Your task to perform on an android device: Open calendar and show me the second week of next month Image 0: 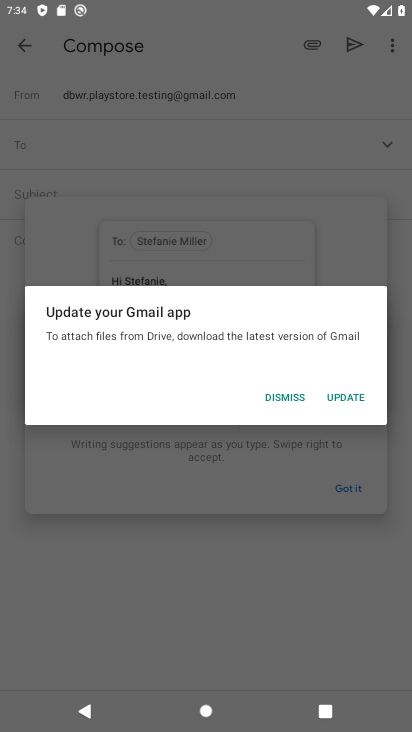
Step 0: press home button
Your task to perform on an android device: Open calendar and show me the second week of next month Image 1: 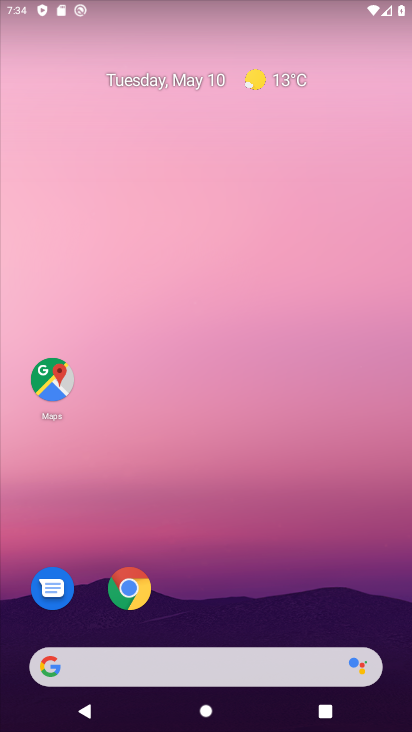
Step 1: click (164, 69)
Your task to perform on an android device: Open calendar and show me the second week of next month Image 2: 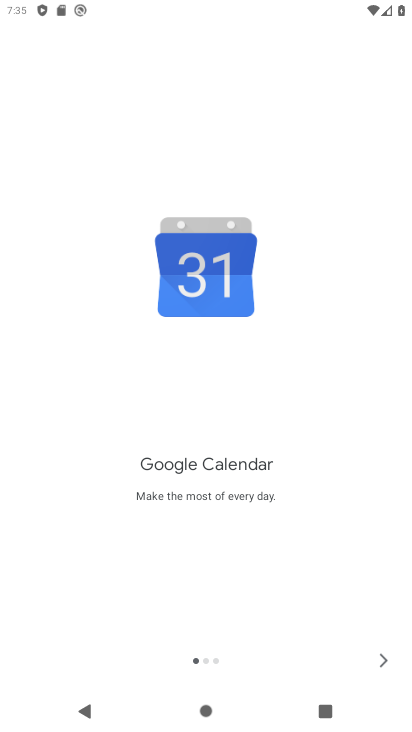
Step 2: click (390, 668)
Your task to perform on an android device: Open calendar and show me the second week of next month Image 3: 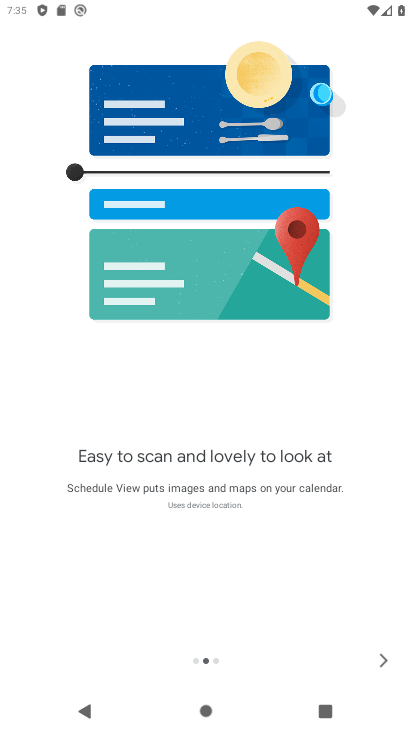
Step 3: click (390, 668)
Your task to perform on an android device: Open calendar and show me the second week of next month Image 4: 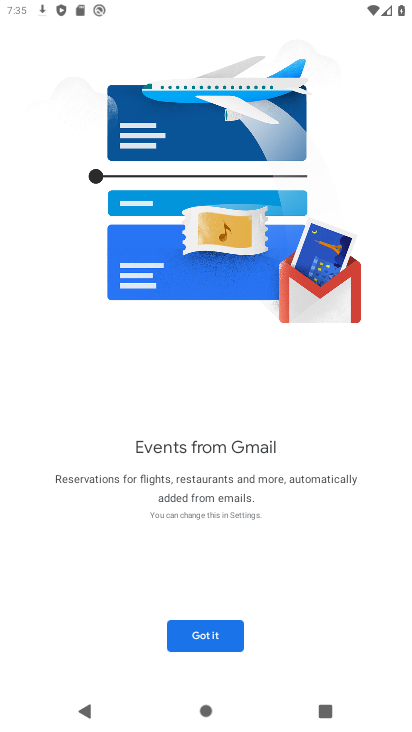
Step 4: click (173, 630)
Your task to perform on an android device: Open calendar and show me the second week of next month Image 5: 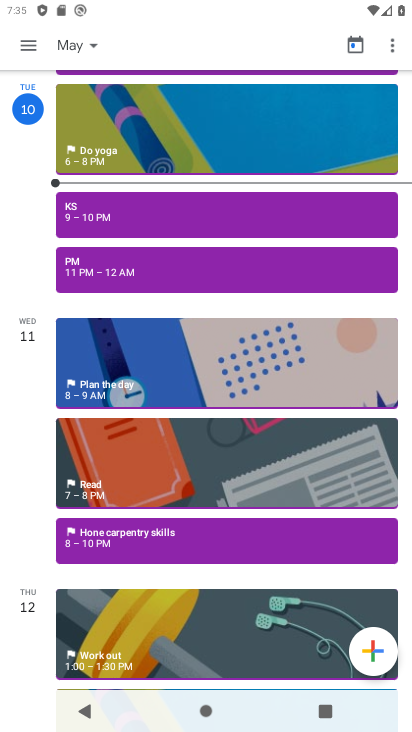
Step 5: click (68, 41)
Your task to perform on an android device: Open calendar and show me the second week of next month Image 6: 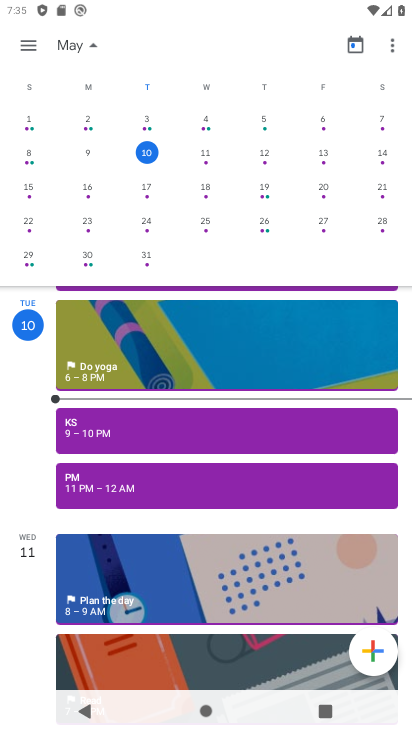
Step 6: drag from (386, 257) to (47, 215)
Your task to perform on an android device: Open calendar and show me the second week of next month Image 7: 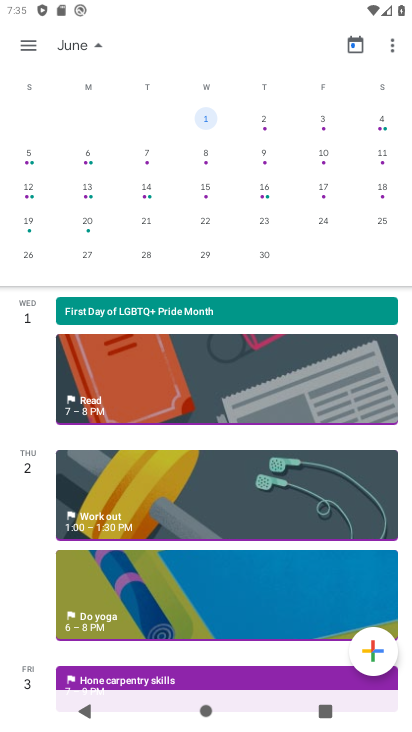
Step 7: click (208, 156)
Your task to perform on an android device: Open calendar and show me the second week of next month Image 8: 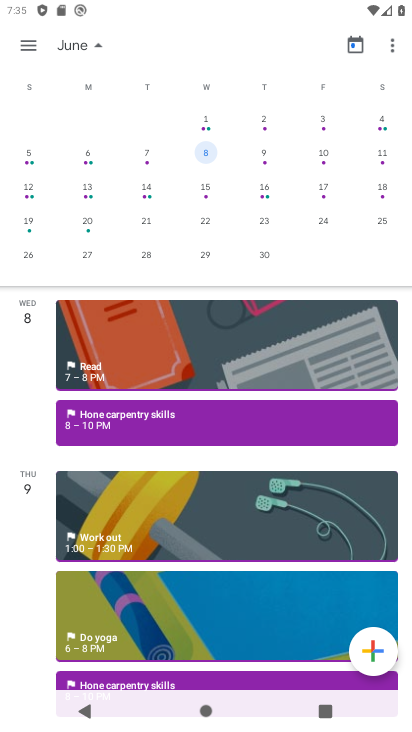
Step 8: task complete